Your task to perform on an android device: change the clock display to show seconds Image 0: 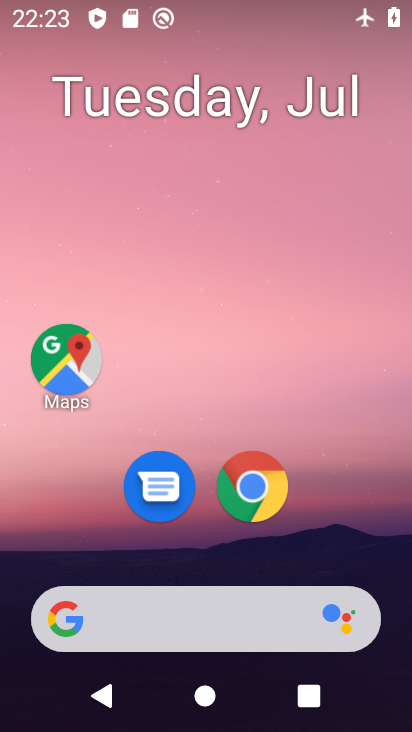
Step 0: press home button
Your task to perform on an android device: change the clock display to show seconds Image 1: 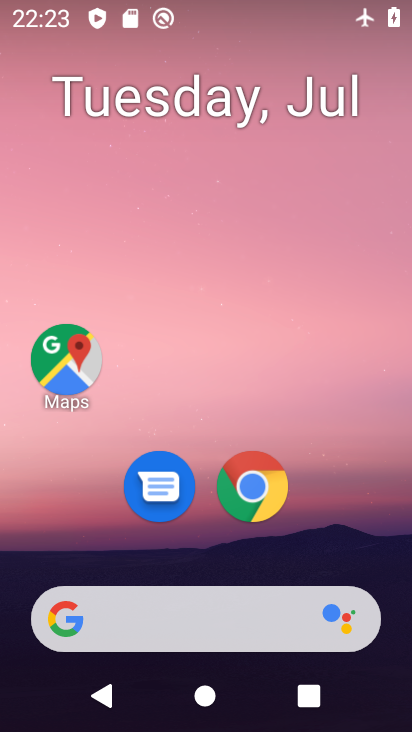
Step 1: drag from (350, 525) to (364, 158)
Your task to perform on an android device: change the clock display to show seconds Image 2: 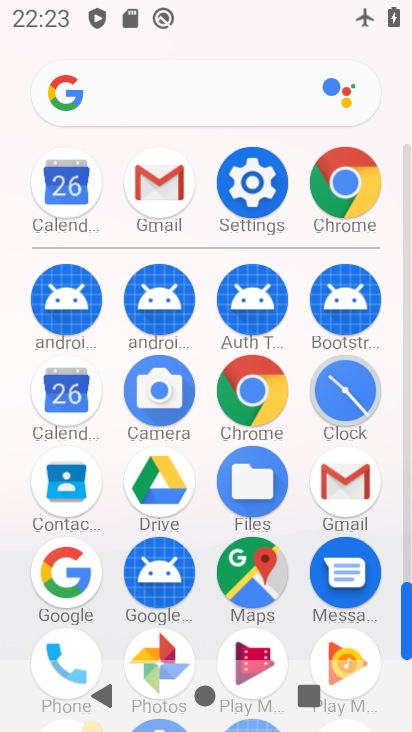
Step 2: click (342, 395)
Your task to perform on an android device: change the clock display to show seconds Image 3: 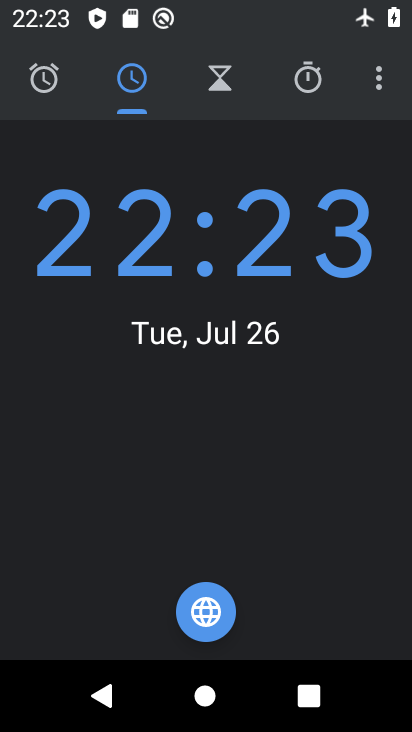
Step 3: click (380, 87)
Your task to perform on an android device: change the clock display to show seconds Image 4: 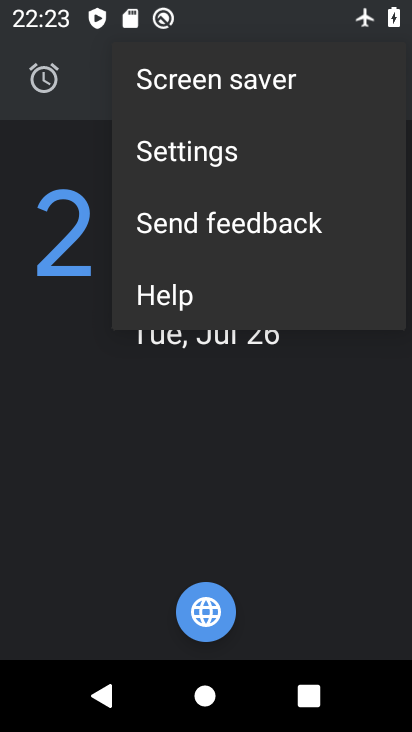
Step 4: click (254, 154)
Your task to perform on an android device: change the clock display to show seconds Image 5: 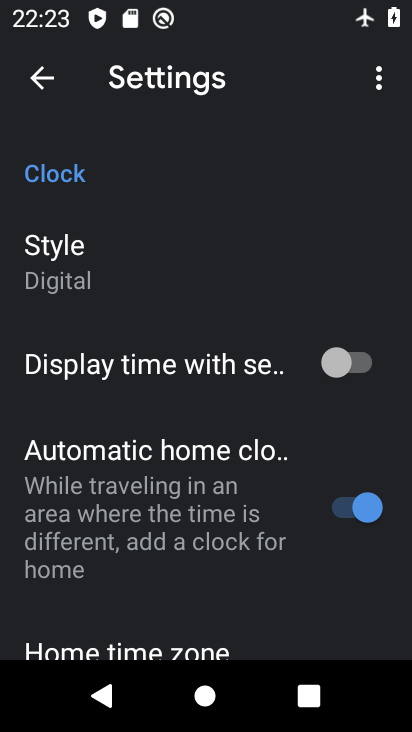
Step 5: drag from (281, 437) to (294, 370)
Your task to perform on an android device: change the clock display to show seconds Image 6: 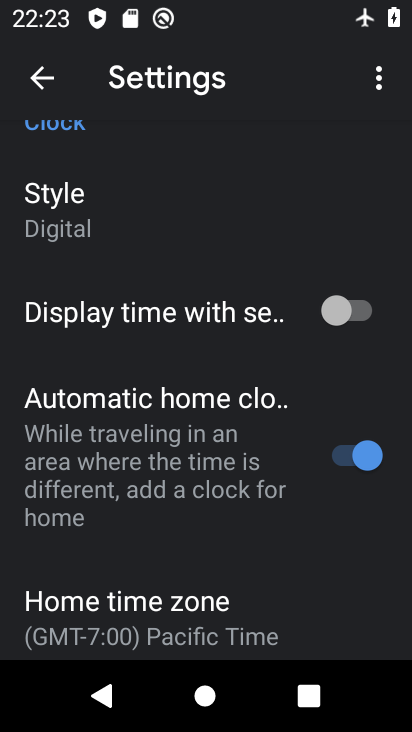
Step 6: click (313, 320)
Your task to perform on an android device: change the clock display to show seconds Image 7: 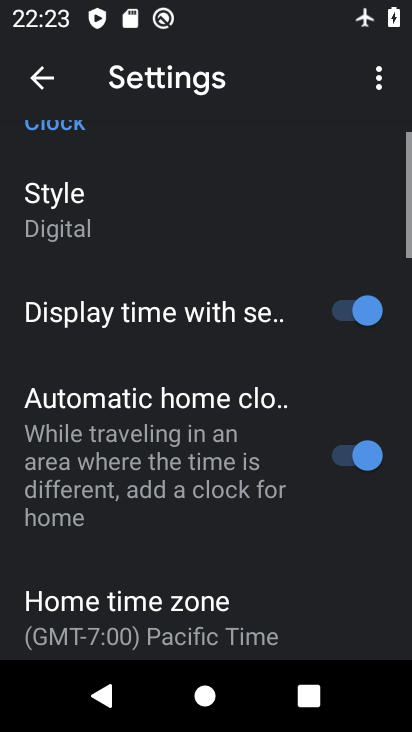
Step 7: task complete